Your task to perform on an android device: find photos in the google photos app Image 0: 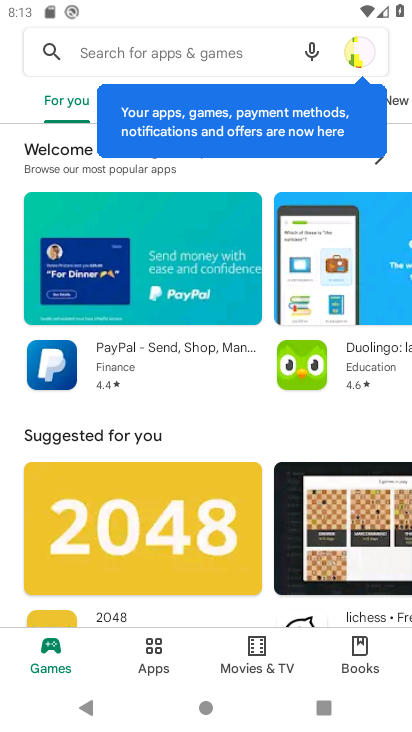
Step 0: press home button
Your task to perform on an android device: find photos in the google photos app Image 1: 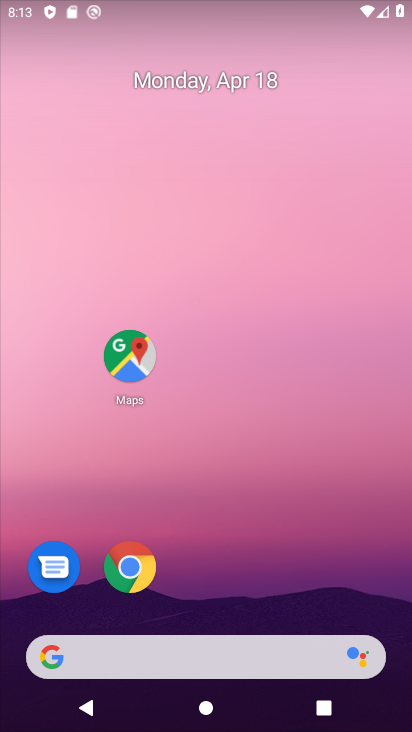
Step 1: drag from (235, 634) to (331, 239)
Your task to perform on an android device: find photos in the google photos app Image 2: 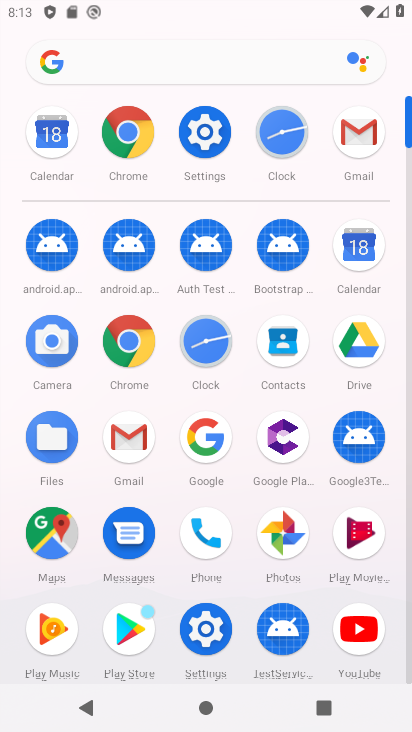
Step 2: click (287, 517)
Your task to perform on an android device: find photos in the google photos app Image 3: 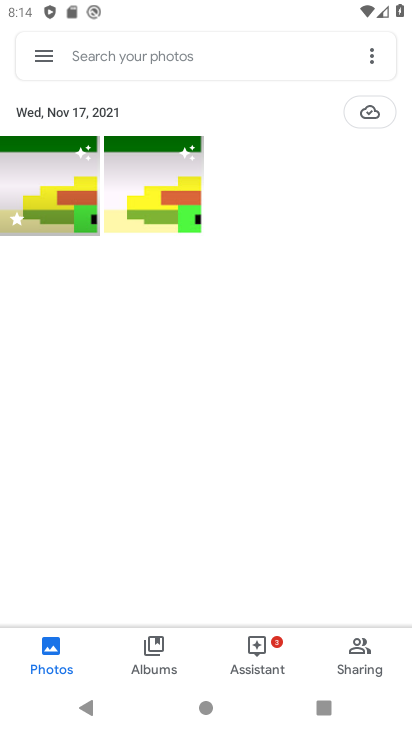
Step 3: click (205, 255)
Your task to perform on an android device: find photos in the google photos app Image 4: 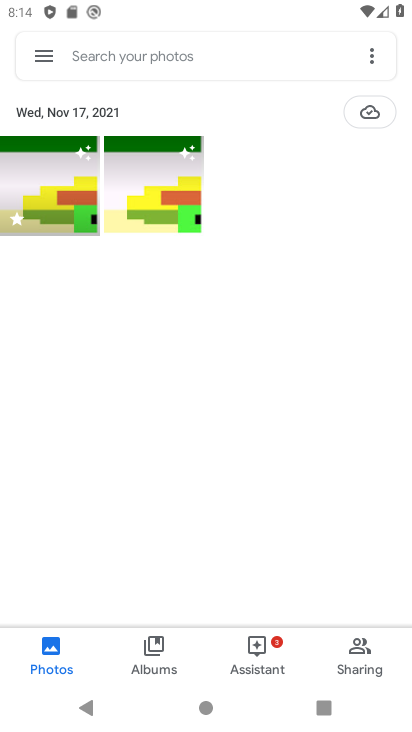
Step 4: task complete